Your task to perform on an android device: turn on sleep mode Image 0: 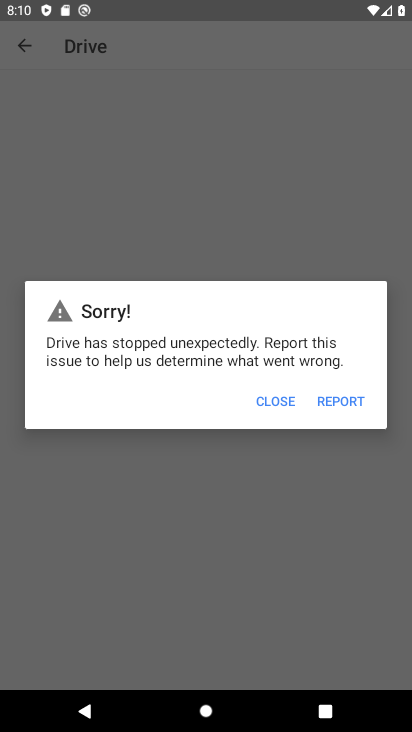
Step 0: press home button
Your task to perform on an android device: turn on sleep mode Image 1: 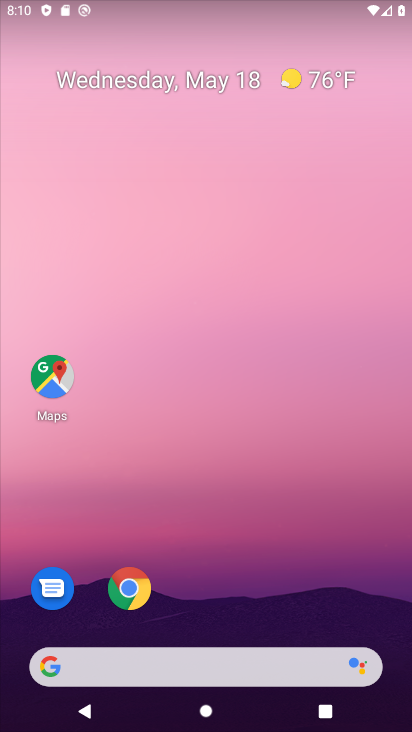
Step 1: drag from (260, 612) to (295, 67)
Your task to perform on an android device: turn on sleep mode Image 2: 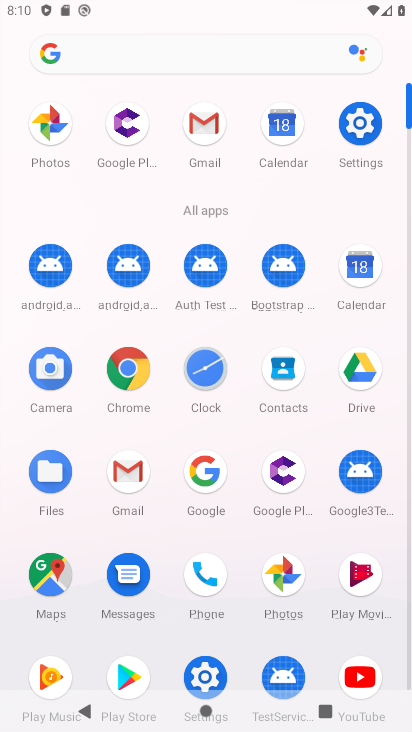
Step 2: click (357, 151)
Your task to perform on an android device: turn on sleep mode Image 3: 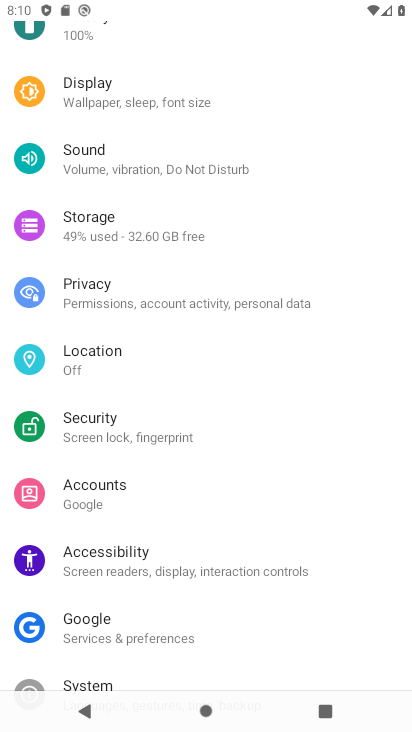
Step 3: drag from (189, 171) to (185, 343)
Your task to perform on an android device: turn on sleep mode Image 4: 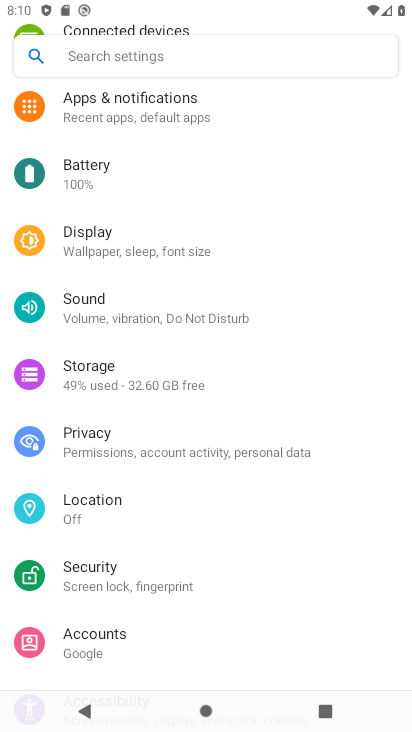
Step 4: click (180, 245)
Your task to perform on an android device: turn on sleep mode Image 5: 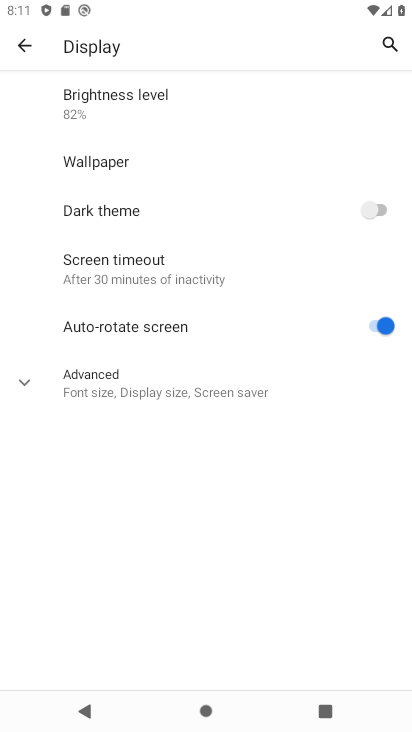
Step 5: click (212, 283)
Your task to perform on an android device: turn on sleep mode Image 6: 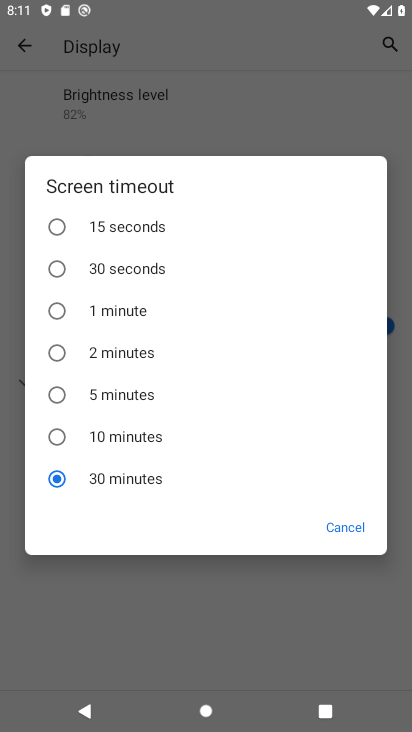
Step 6: click (212, 283)
Your task to perform on an android device: turn on sleep mode Image 7: 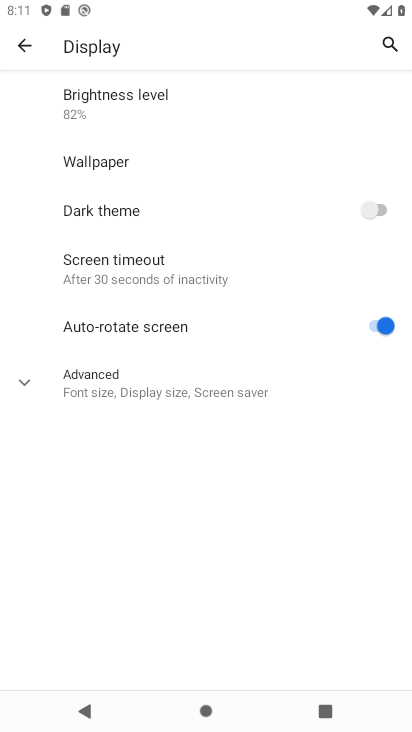
Step 7: task complete